Your task to perform on an android device: open chrome privacy settings Image 0: 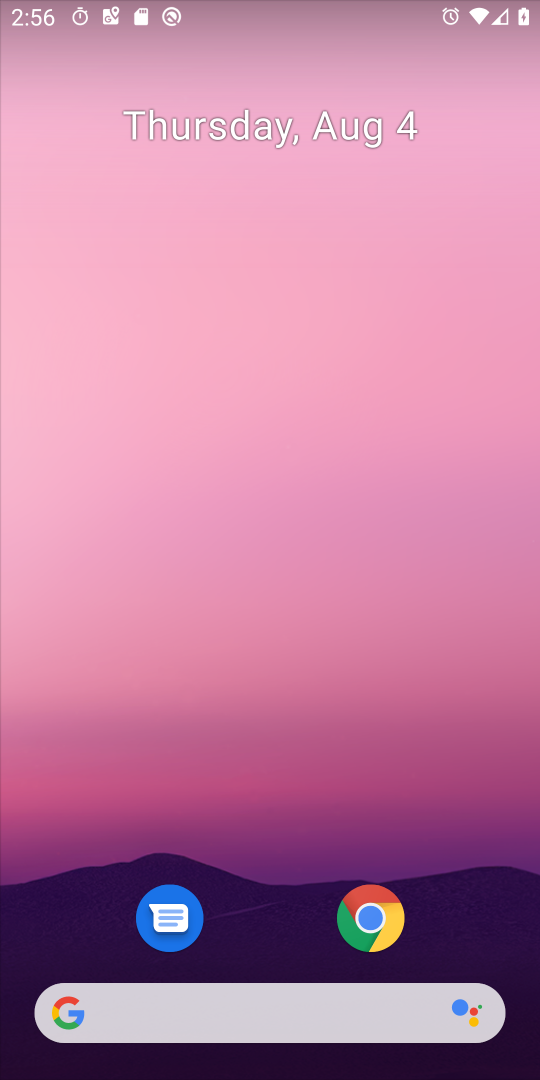
Step 0: click (345, 906)
Your task to perform on an android device: open chrome privacy settings Image 1: 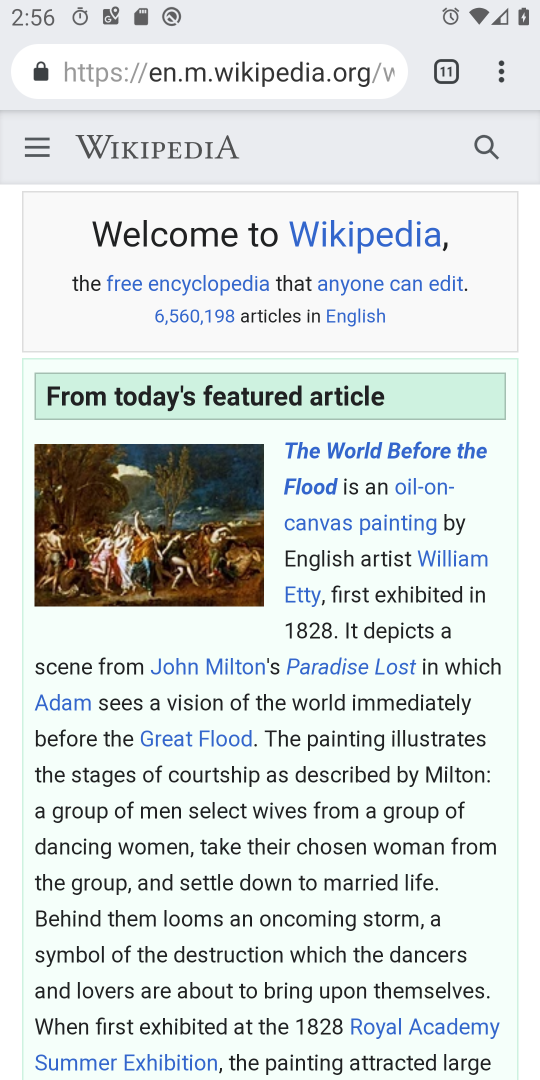
Step 1: drag from (502, 65) to (279, 852)
Your task to perform on an android device: open chrome privacy settings Image 2: 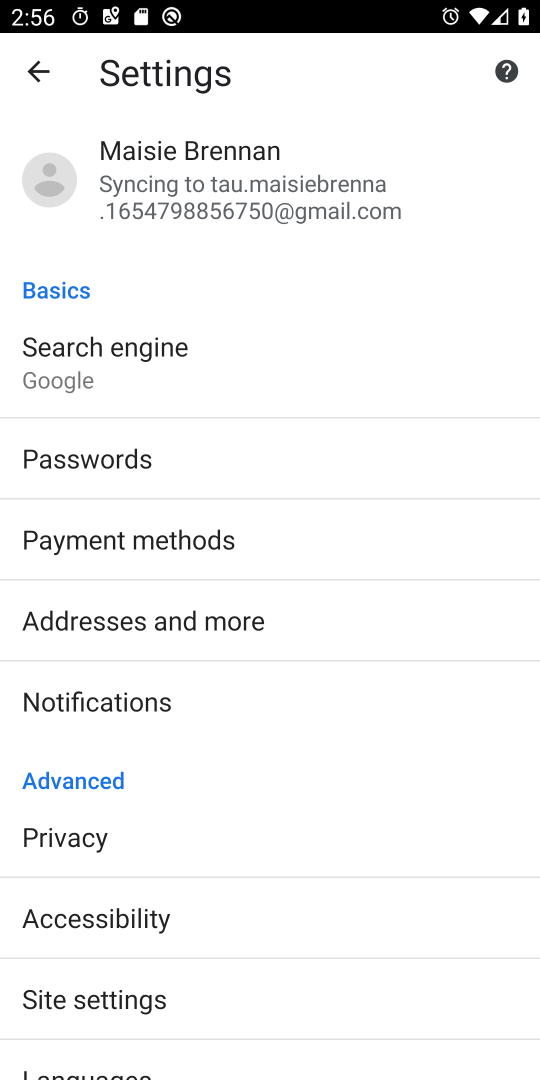
Step 2: click (152, 850)
Your task to perform on an android device: open chrome privacy settings Image 3: 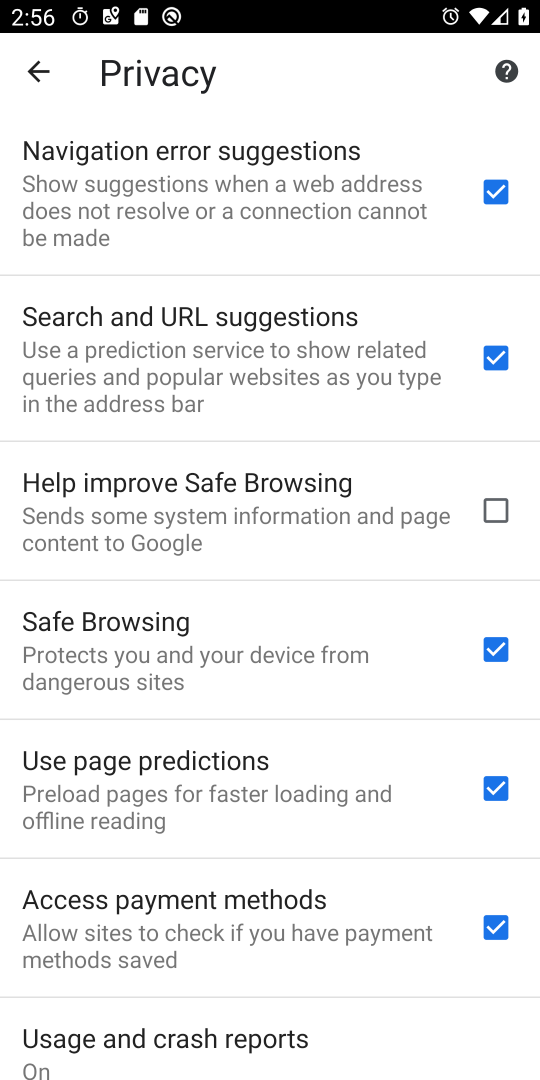
Step 3: task complete